Your task to perform on an android device: Search for "dell xps" on newegg.com, select the first entry, add it to the cart, then select checkout. Image 0: 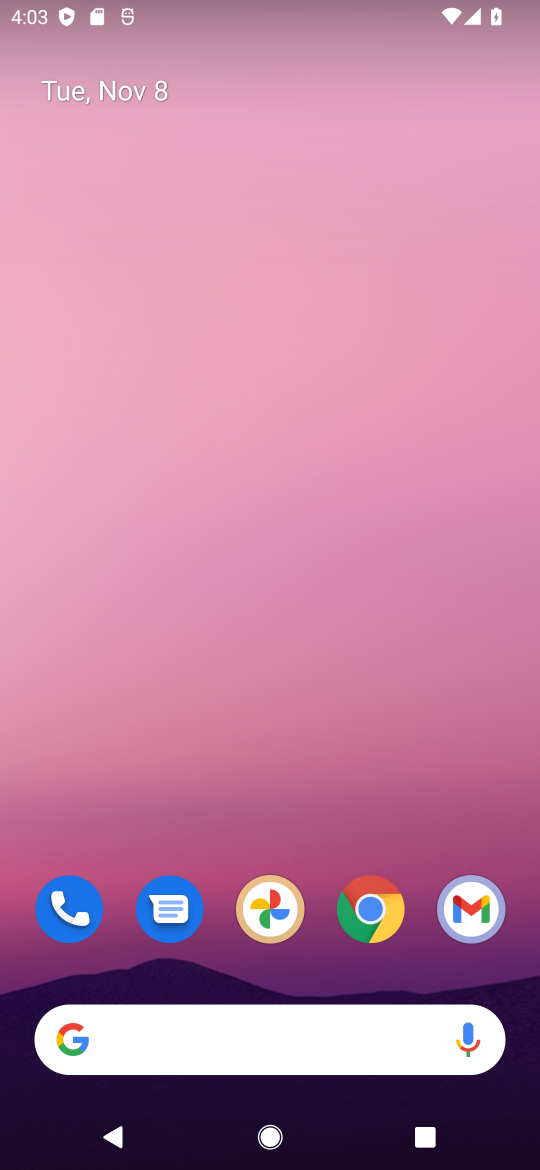
Step 0: click (355, 915)
Your task to perform on an android device: Search for "dell xps" on newegg.com, select the first entry, add it to the cart, then select checkout. Image 1: 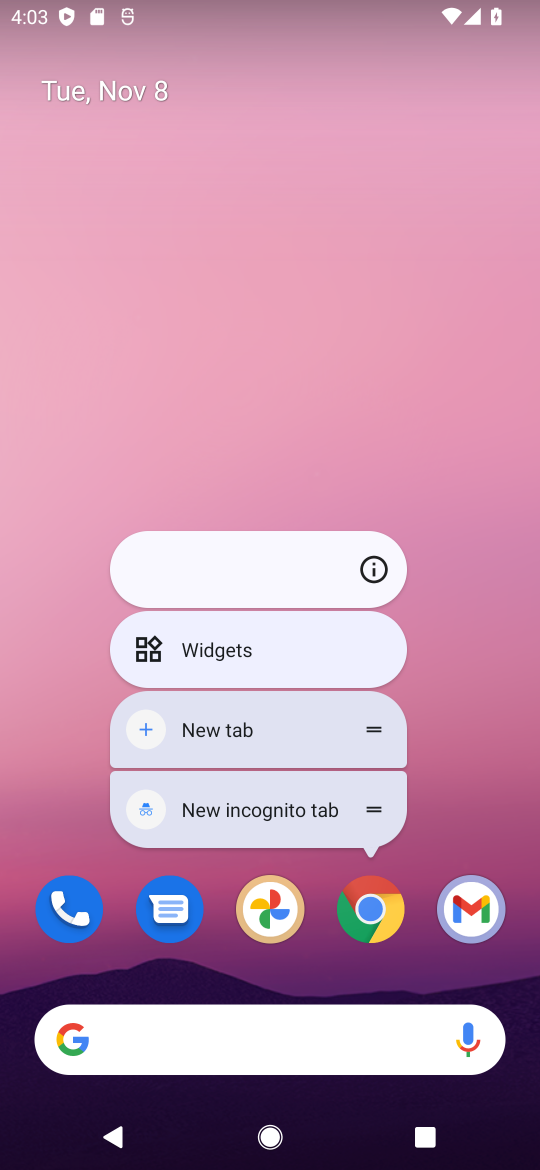
Step 1: click (372, 915)
Your task to perform on an android device: Search for "dell xps" on newegg.com, select the first entry, add it to the cart, then select checkout. Image 2: 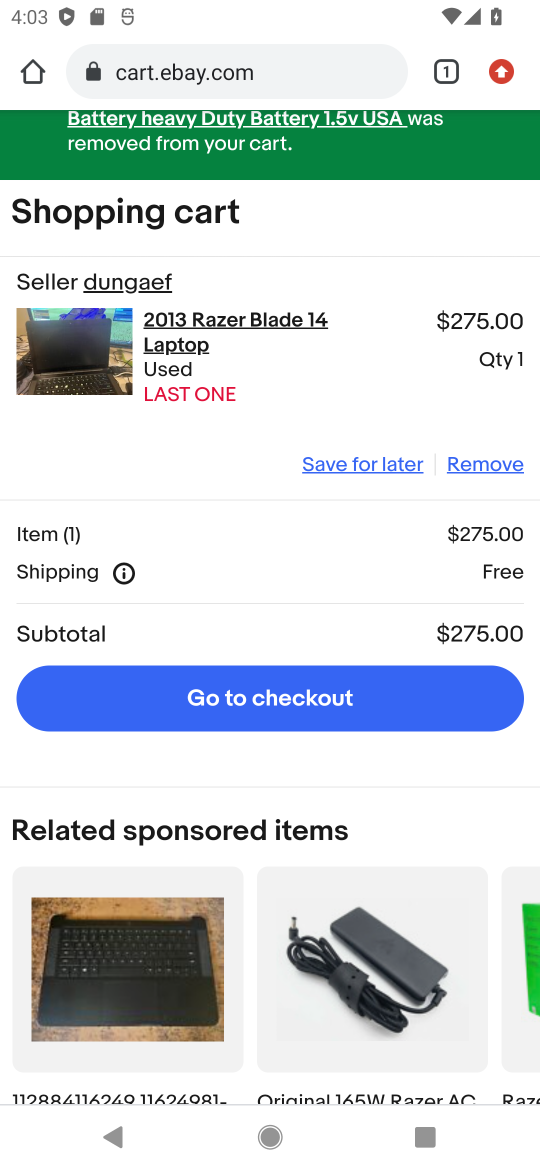
Step 2: drag from (323, 275) to (287, 814)
Your task to perform on an android device: Search for "dell xps" on newegg.com, select the first entry, add it to the cart, then select checkout. Image 3: 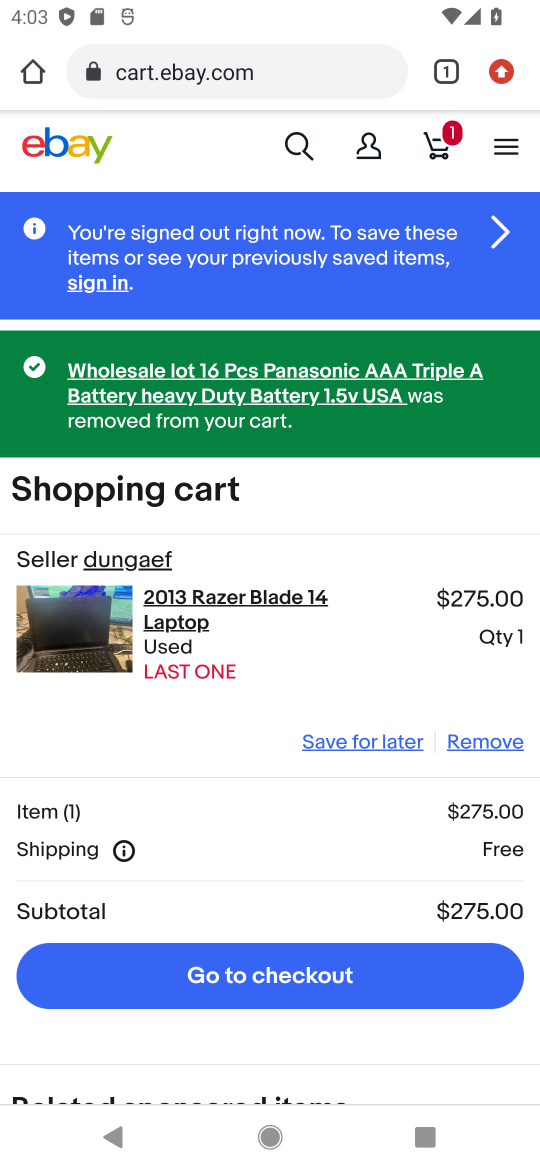
Step 3: click (301, 132)
Your task to perform on an android device: Search for "dell xps" on newegg.com, select the first entry, add it to the cart, then select checkout. Image 4: 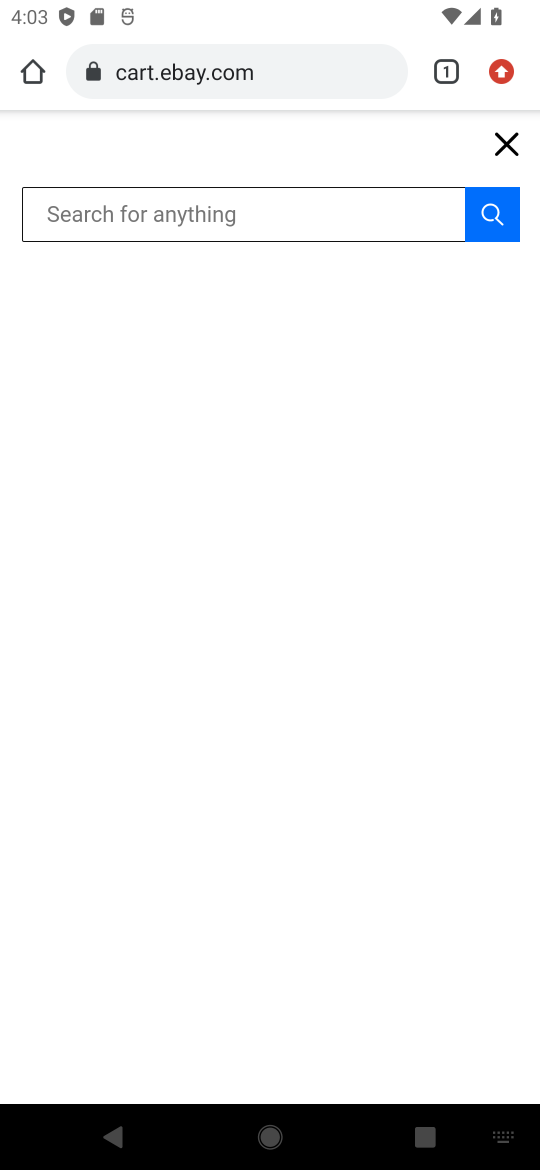
Step 4: click (318, 53)
Your task to perform on an android device: Search for "dell xps" on newegg.com, select the first entry, add it to the cart, then select checkout. Image 5: 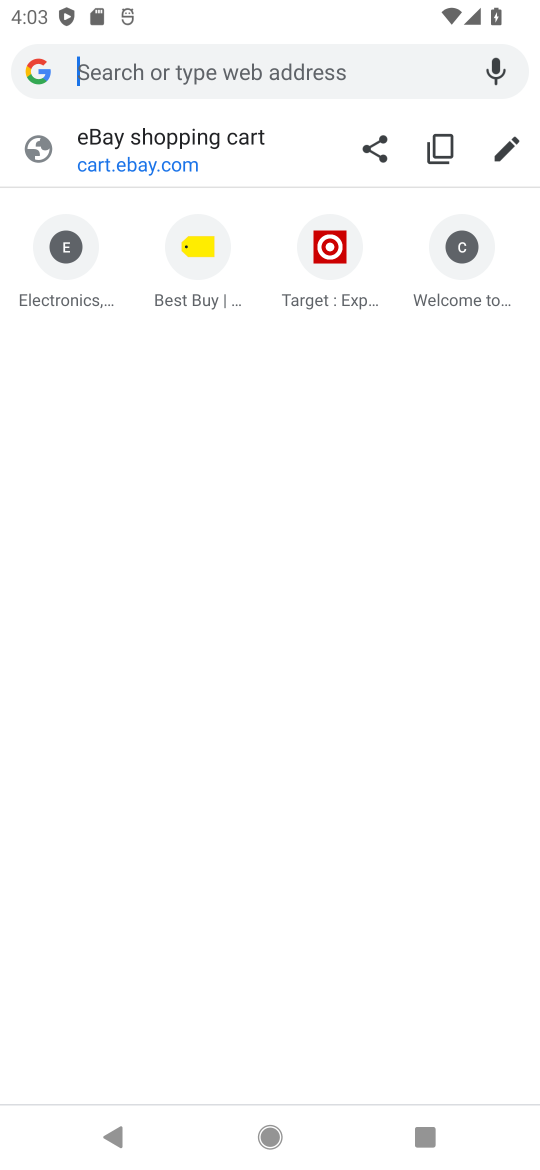
Step 5: type "newegg.com"
Your task to perform on an android device: Search for "dell xps" on newegg.com, select the first entry, add it to the cart, then select checkout. Image 6: 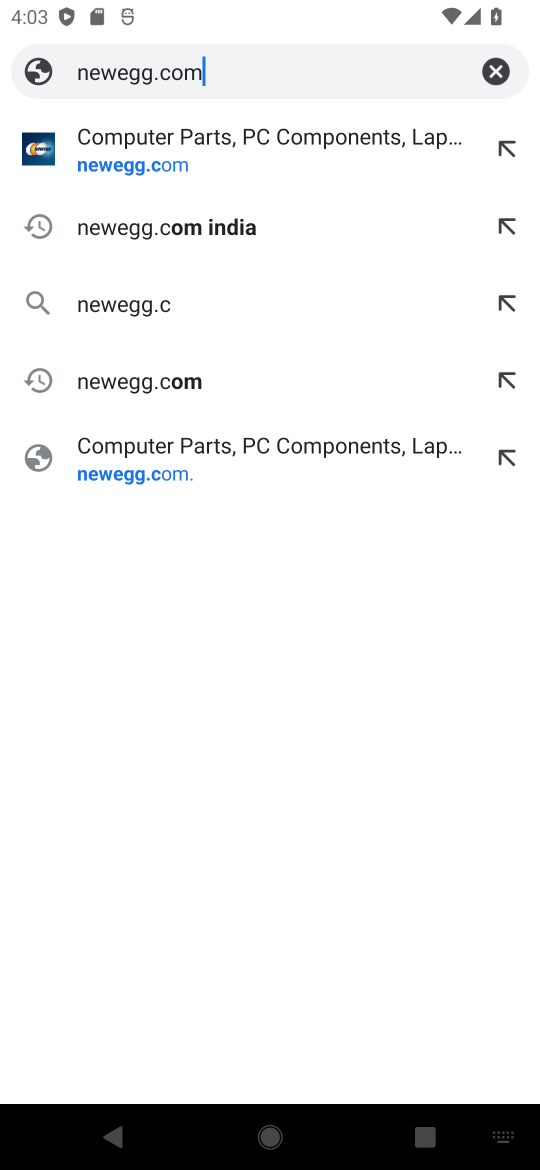
Step 6: press enter
Your task to perform on an android device: Search for "dell xps" on newegg.com, select the first entry, add it to the cart, then select checkout. Image 7: 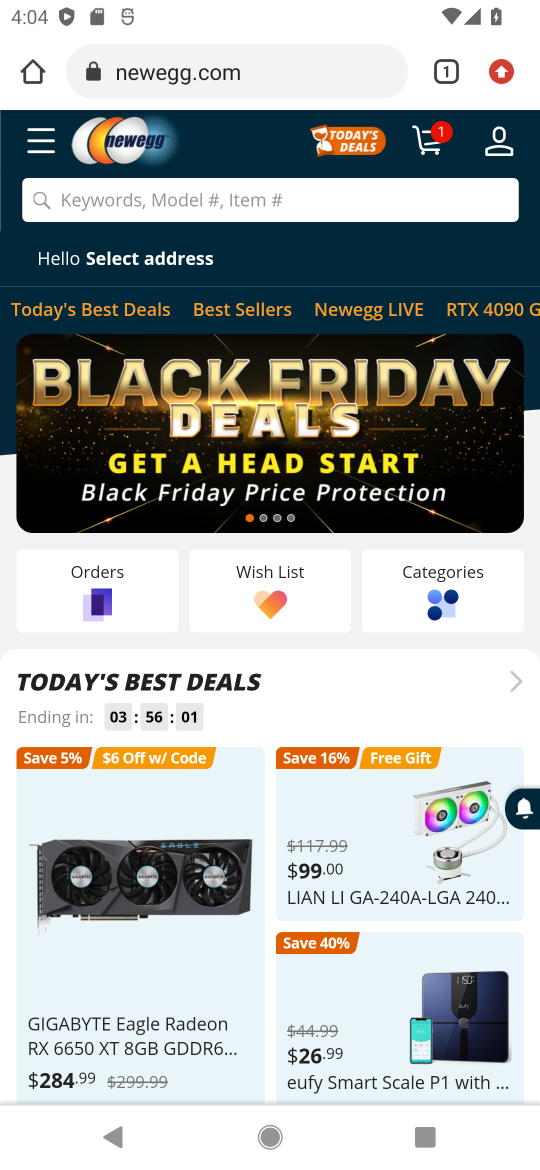
Step 7: click (177, 189)
Your task to perform on an android device: Search for "dell xps" on newegg.com, select the first entry, add it to the cart, then select checkout. Image 8: 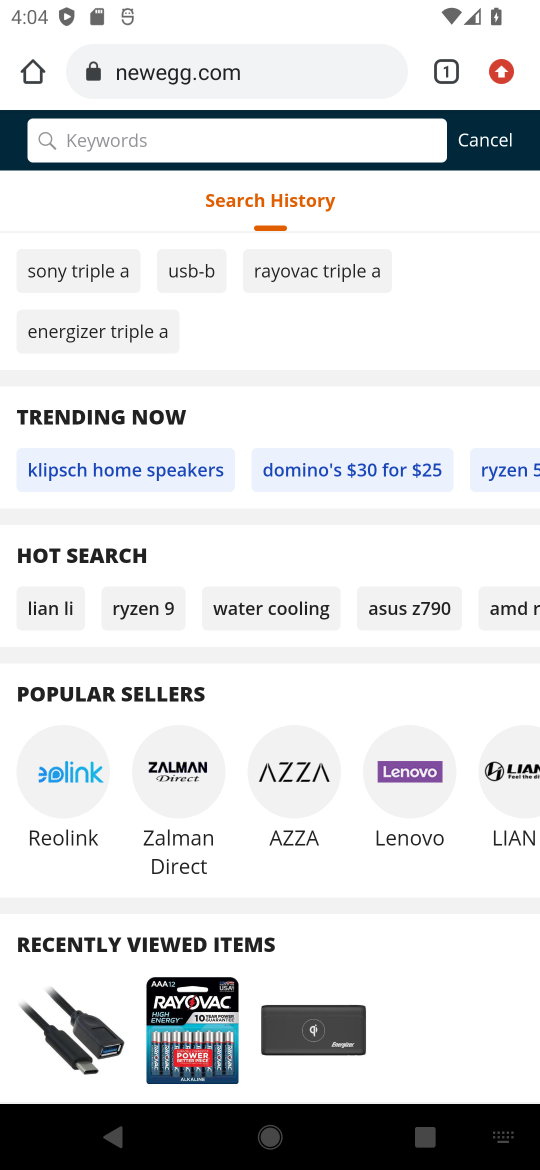
Step 8: type "dell xps"
Your task to perform on an android device: Search for "dell xps" on newegg.com, select the first entry, add it to the cart, then select checkout. Image 9: 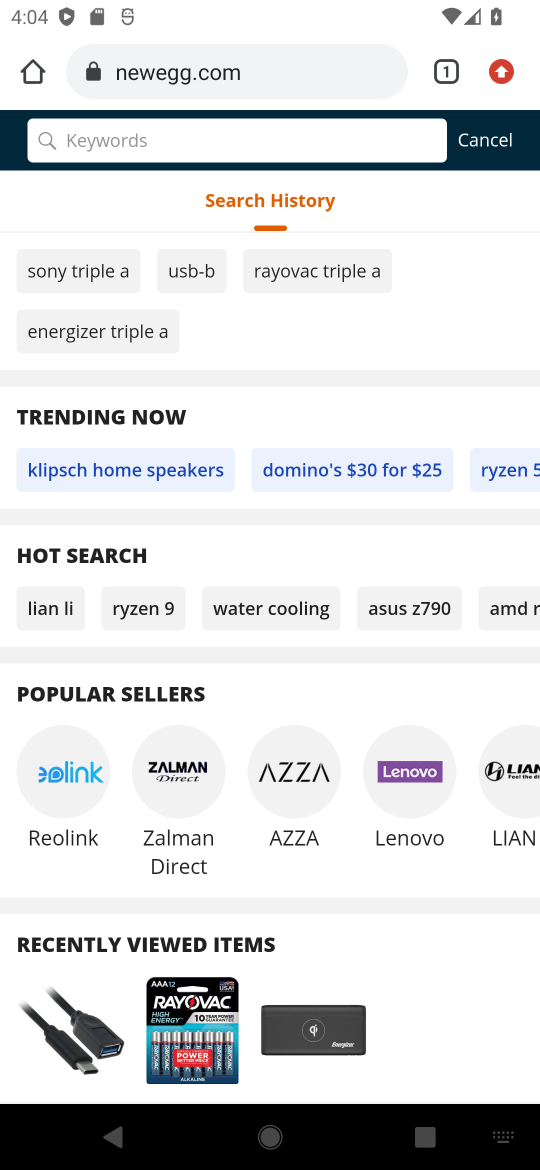
Step 9: press enter
Your task to perform on an android device: Search for "dell xps" on newegg.com, select the first entry, add it to the cart, then select checkout. Image 10: 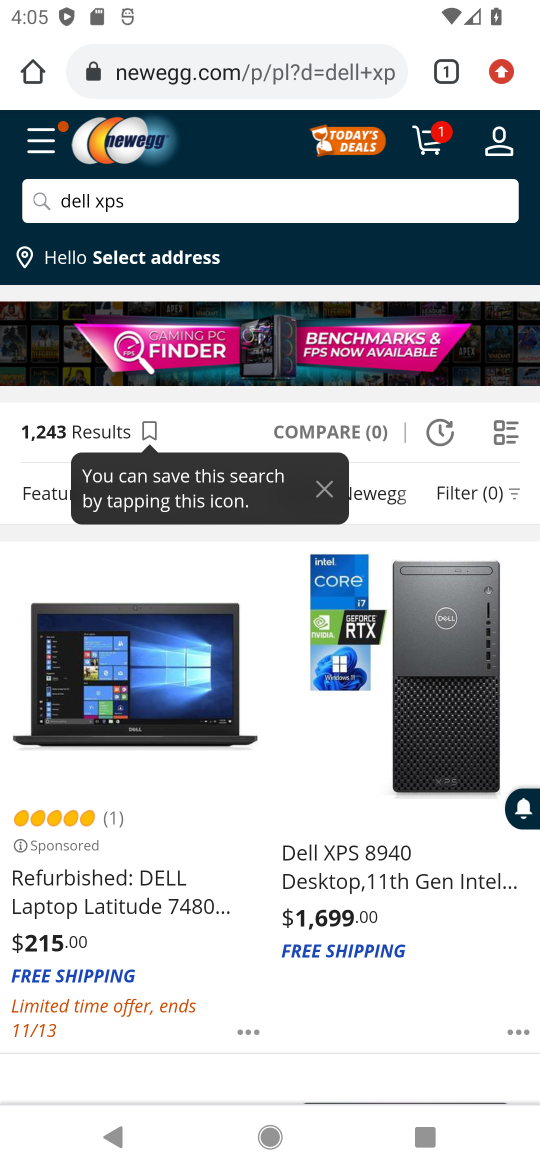
Step 10: click (129, 907)
Your task to perform on an android device: Search for "dell xps" on newegg.com, select the first entry, add it to the cart, then select checkout. Image 11: 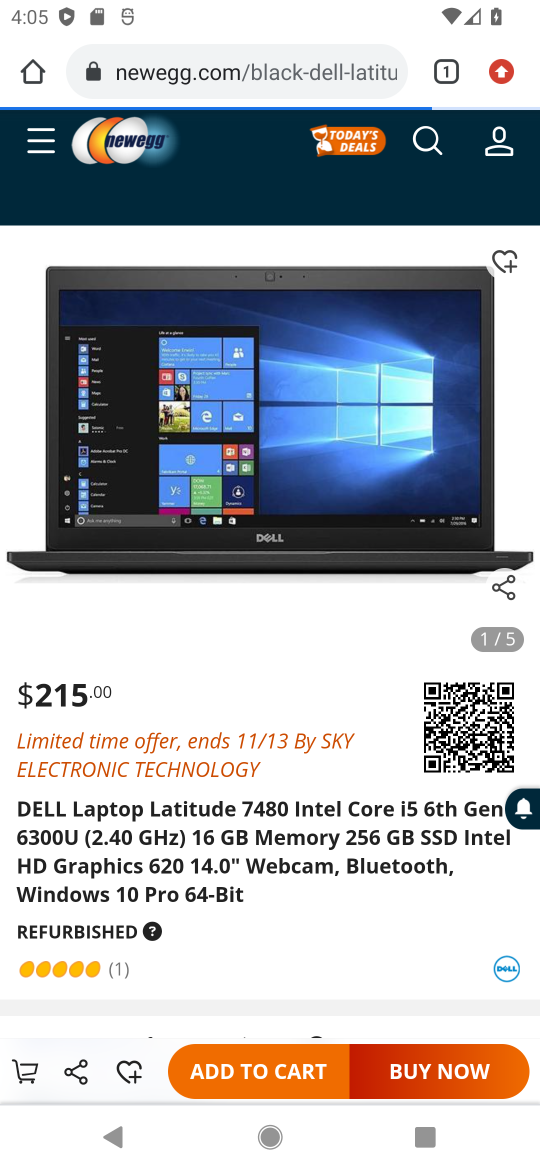
Step 11: click (115, 875)
Your task to perform on an android device: Search for "dell xps" on newegg.com, select the first entry, add it to the cart, then select checkout. Image 12: 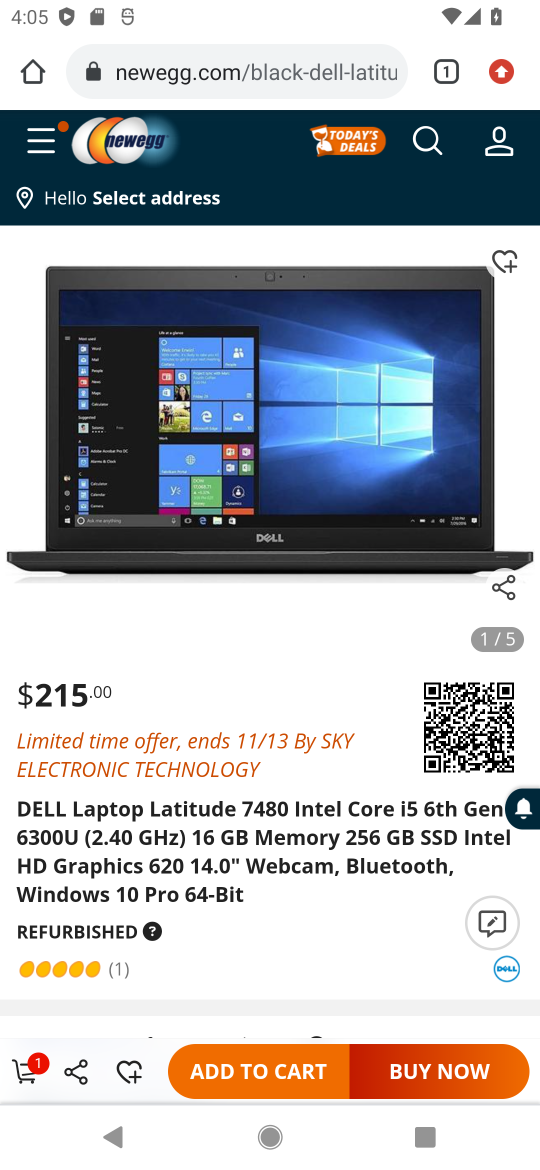
Step 12: task complete